Your task to perform on an android device: Go to network settings Image 0: 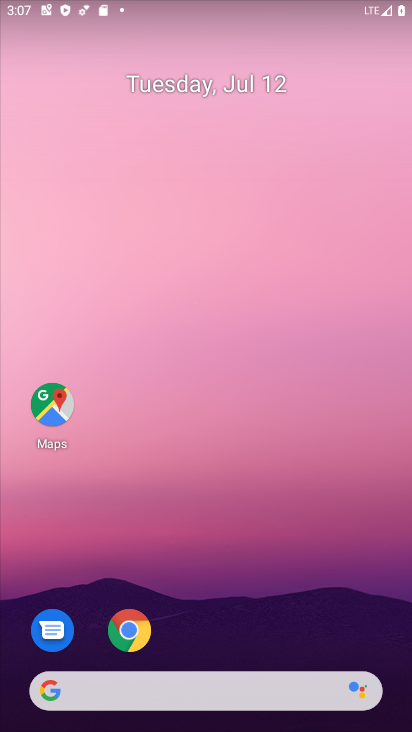
Step 0: drag from (168, 676) to (242, 3)
Your task to perform on an android device: Go to network settings Image 1: 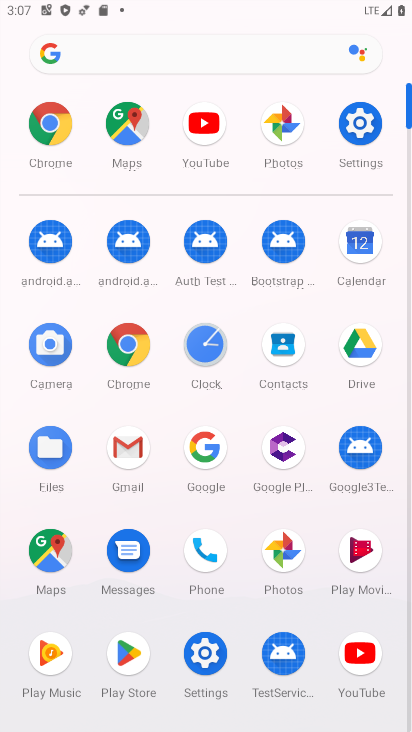
Step 1: click (351, 121)
Your task to perform on an android device: Go to network settings Image 2: 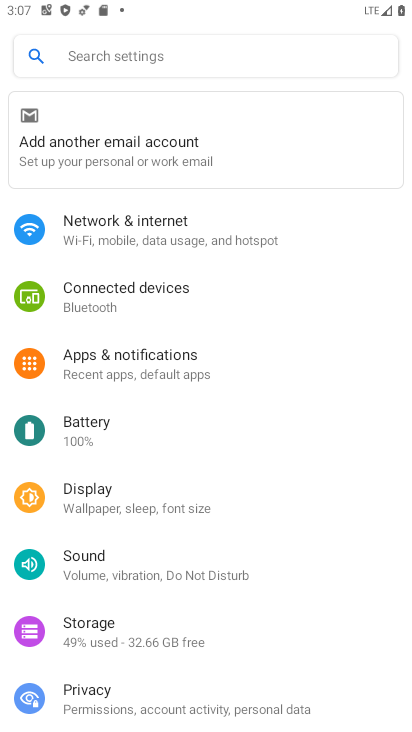
Step 2: click (121, 239)
Your task to perform on an android device: Go to network settings Image 3: 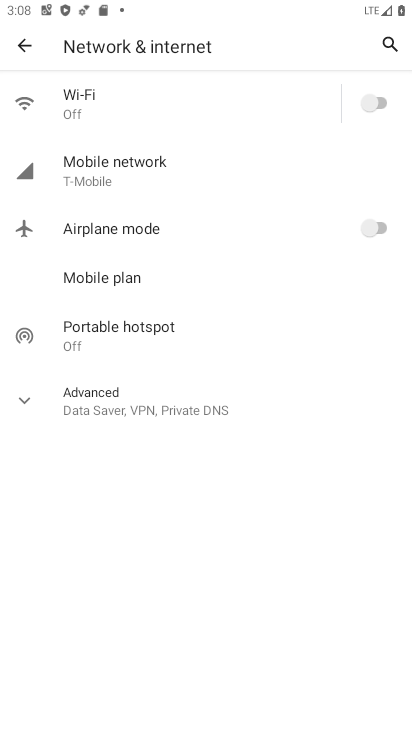
Step 3: task complete